Your task to perform on an android device: Go to Yahoo.com Image 0: 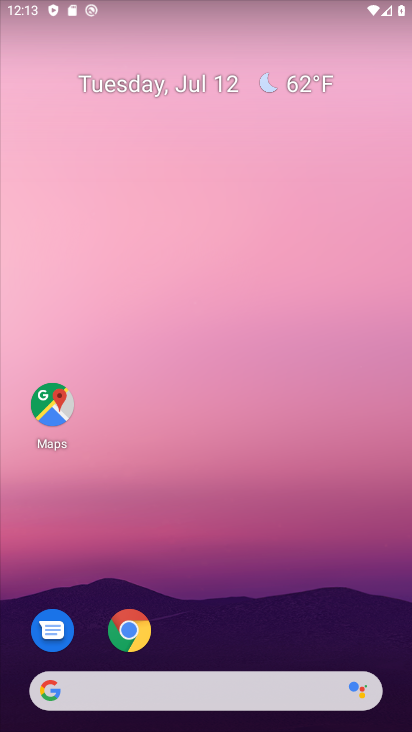
Step 0: click (125, 633)
Your task to perform on an android device: Go to Yahoo.com Image 1: 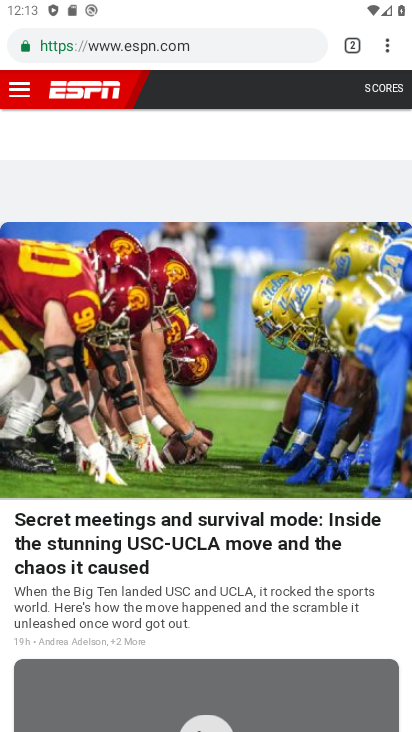
Step 1: click (388, 44)
Your task to perform on an android device: Go to Yahoo.com Image 2: 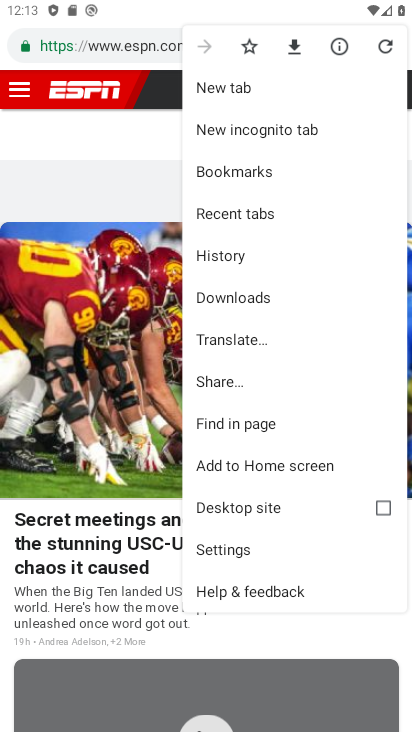
Step 2: click (239, 81)
Your task to perform on an android device: Go to Yahoo.com Image 3: 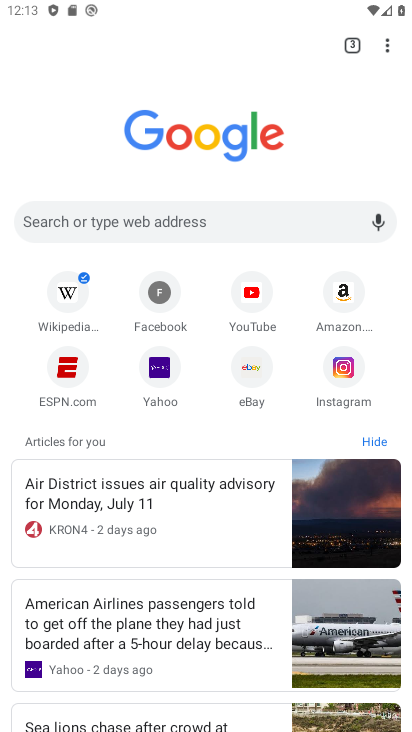
Step 3: click (163, 369)
Your task to perform on an android device: Go to Yahoo.com Image 4: 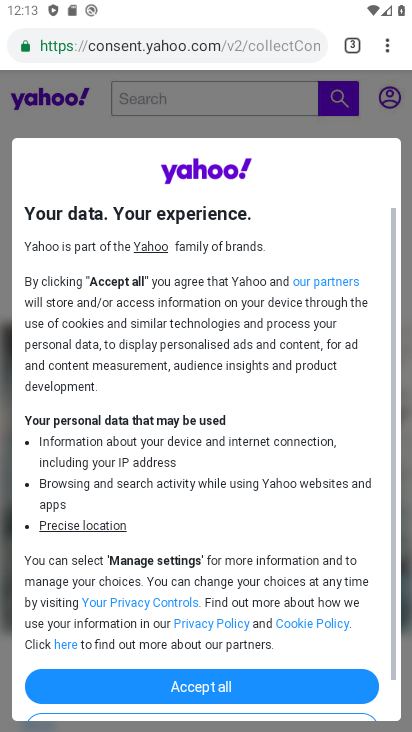
Step 4: click (233, 682)
Your task to perform on an android device: Go to Yahoo.com Image 5: 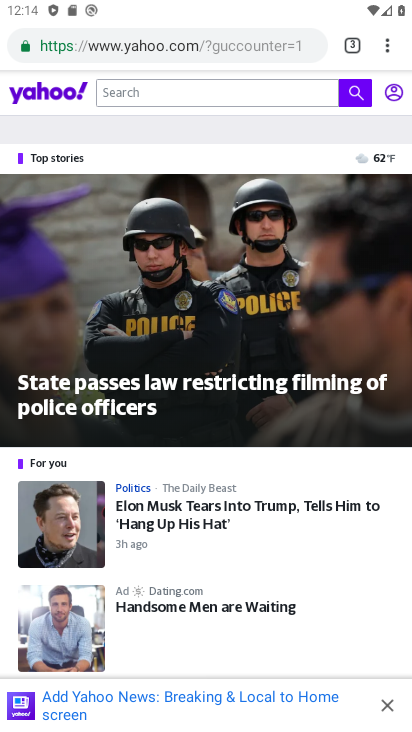
Step 5: task complete